Your task to perform on an android device: turn on priority inbox in the gmail app Image 0: 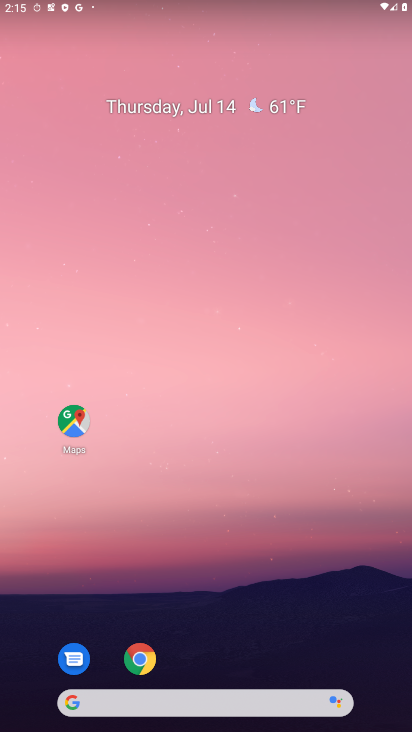
Step 0: drag from (249, 677) to (238, 153)
Your task to perform on an android device: turn on priority inbox in the gmail app Image 1: 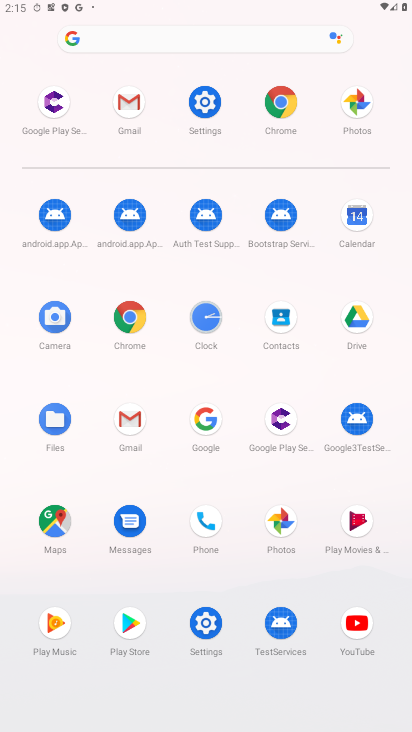
Step 1: click (137, 429)
Your task to perform on an android device: turn on priority inbox in the gmail app Image 2: 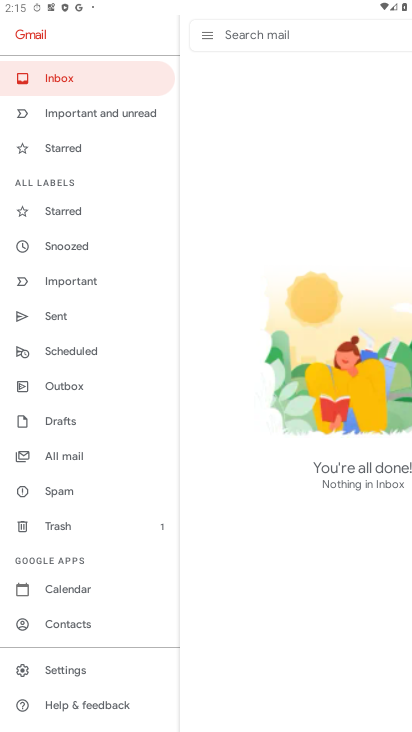
Step 2: click (54, 662)
Your task to perform on an android device: turn on priority inbox in the gmail app Image 3: 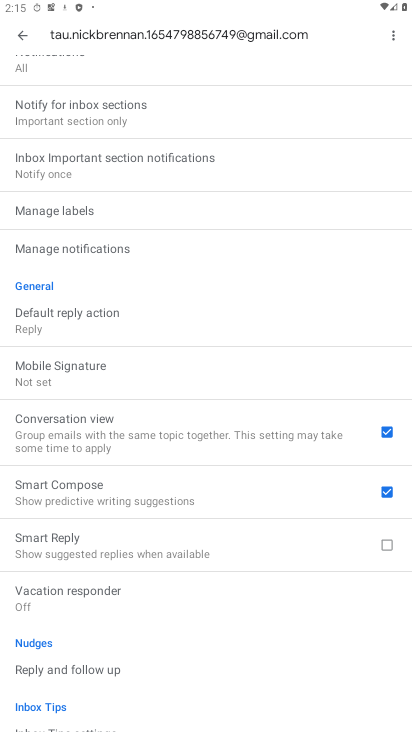
Step 3: drag from (69, 177) to (55, 550)
Your task to perform on an android device: turn on priority inbox in the gmail app Image 4: 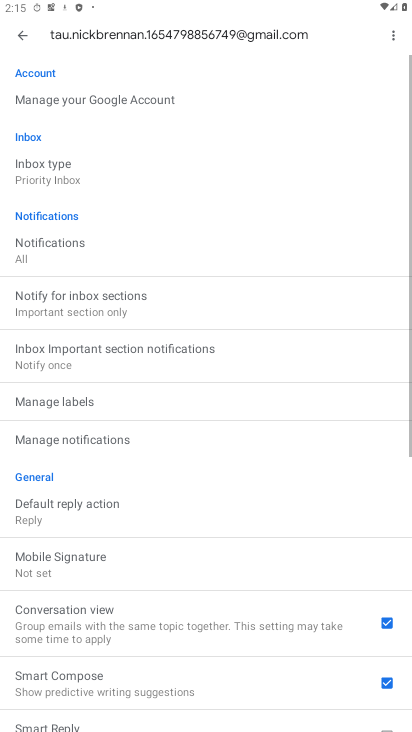
Step 4: click (73, 177)
Your task to perform on an android device: turn on priority inbox in the gmail app Image 5: 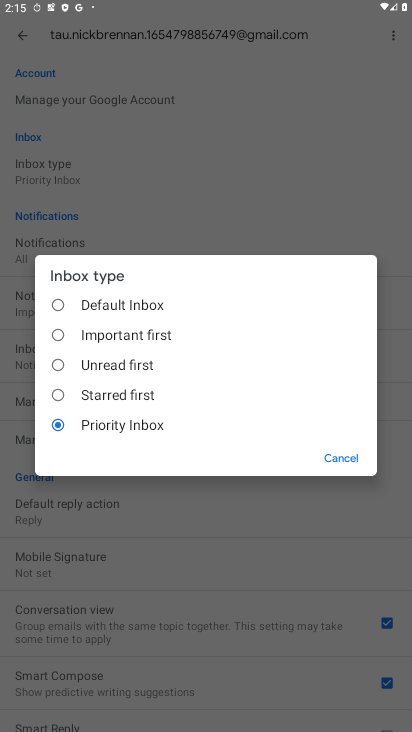
Step 5: click (118, 428)
Your task to perform on an android device: turn on priority inbox in the gmail app Image 6: 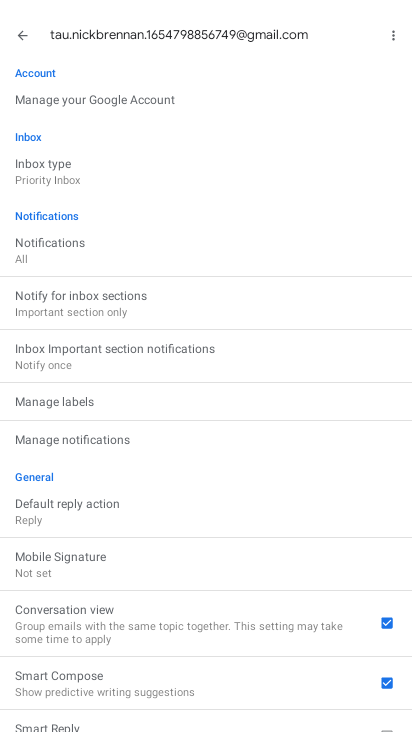
Step 6: task complete